Your task to perform on an android device: Empty the shopping cart on newegg.com. Add dell xps to the cart on newegg.com Image 0: 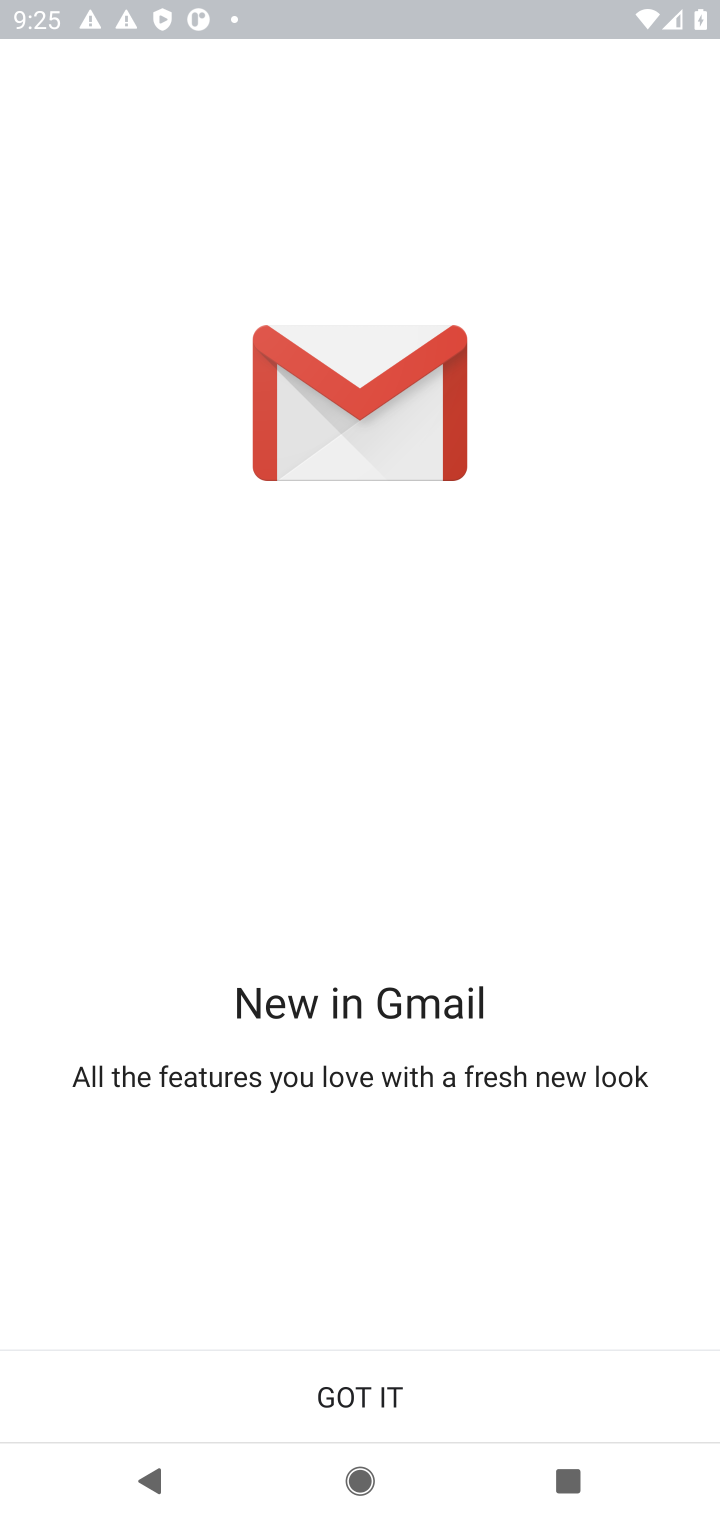
Step 0: press home button
Your task to perform on an android device: Empty the shopping cart on newegg.com. Add dell xps to the cart on newegg.com Image 1: 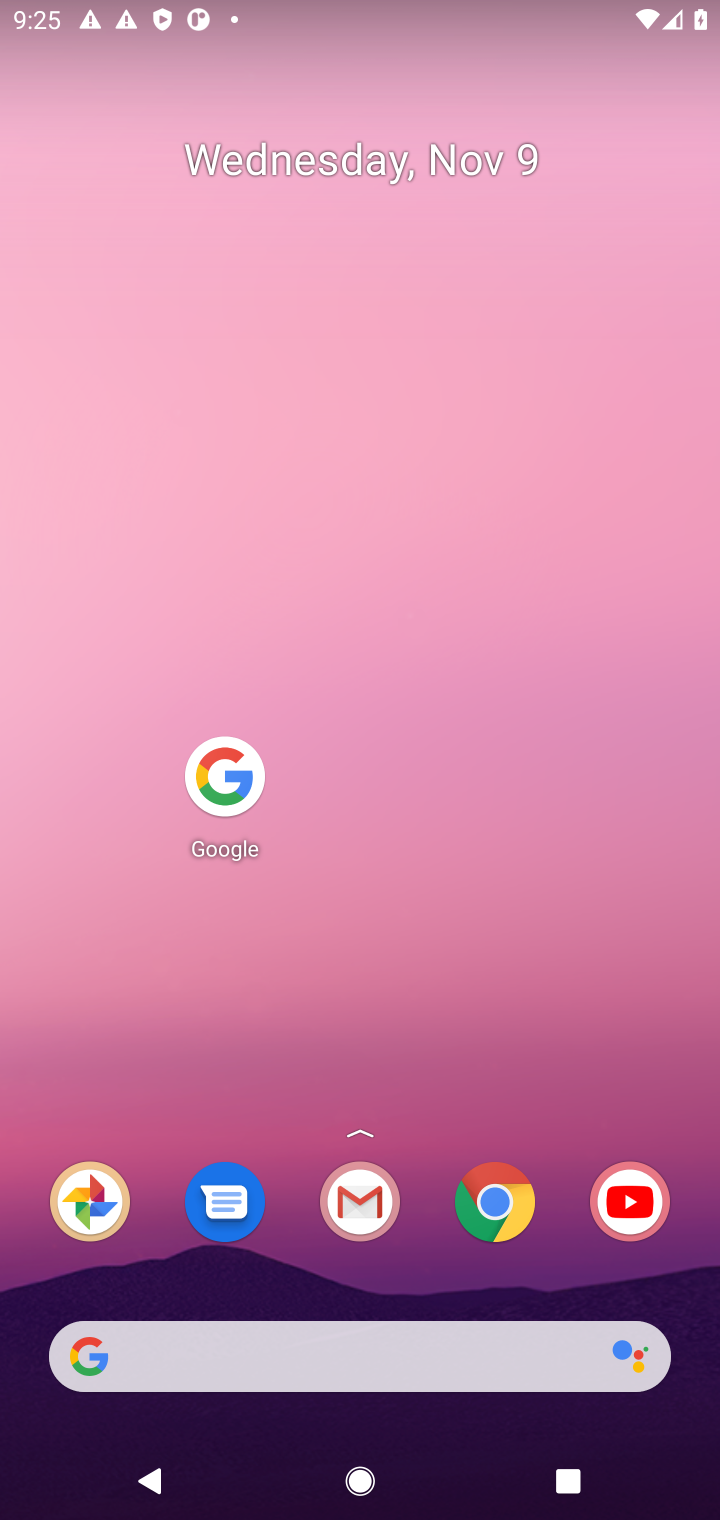
Step 1: click (229, 776)
Your task to perform on an android device: Empty the shopping cart on newegg.com. Add dell xps to the cart on newegg.com Image 2: 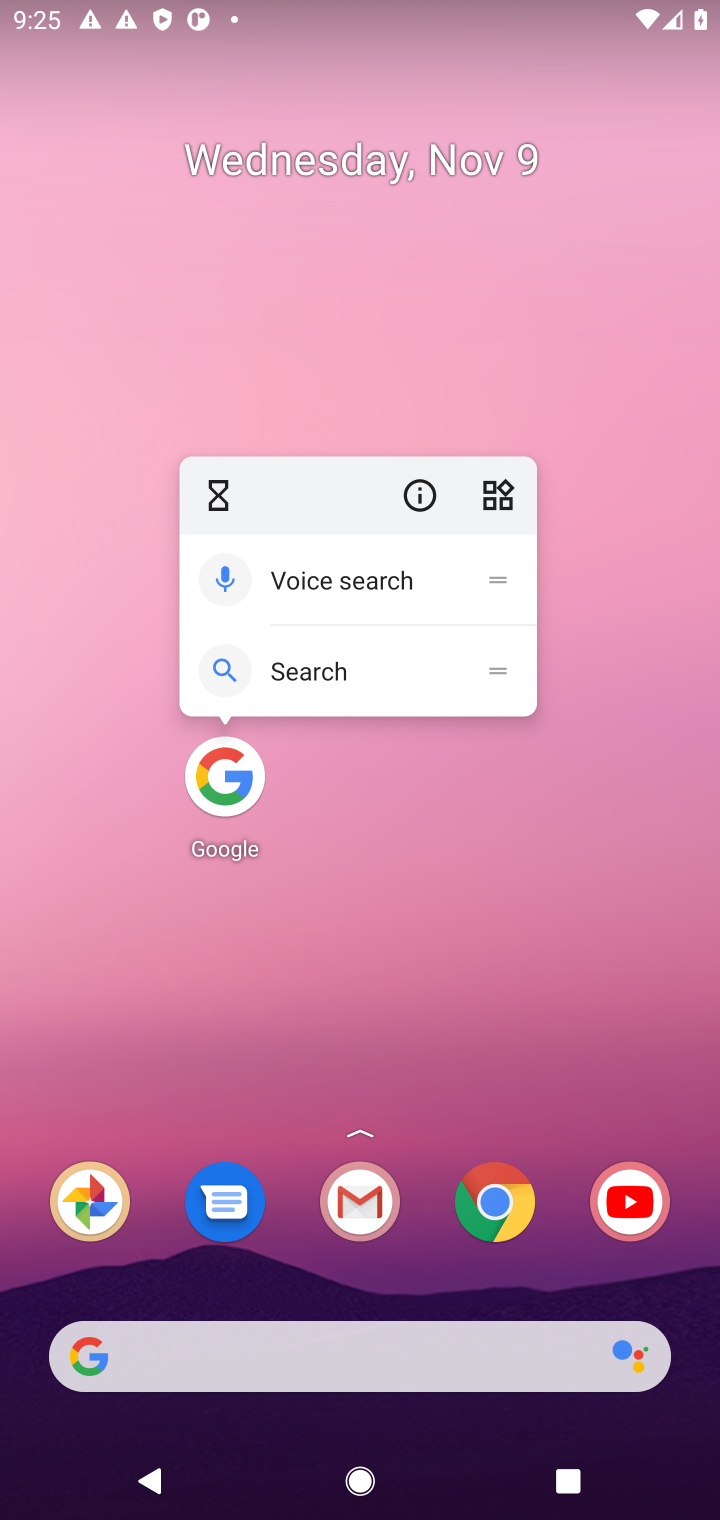
Step 2: click (229, 778)
Your task to perform on an android device: Empty the shopping cart on newegg.com. Add dell xps to the cart on newegg.com Image 3: 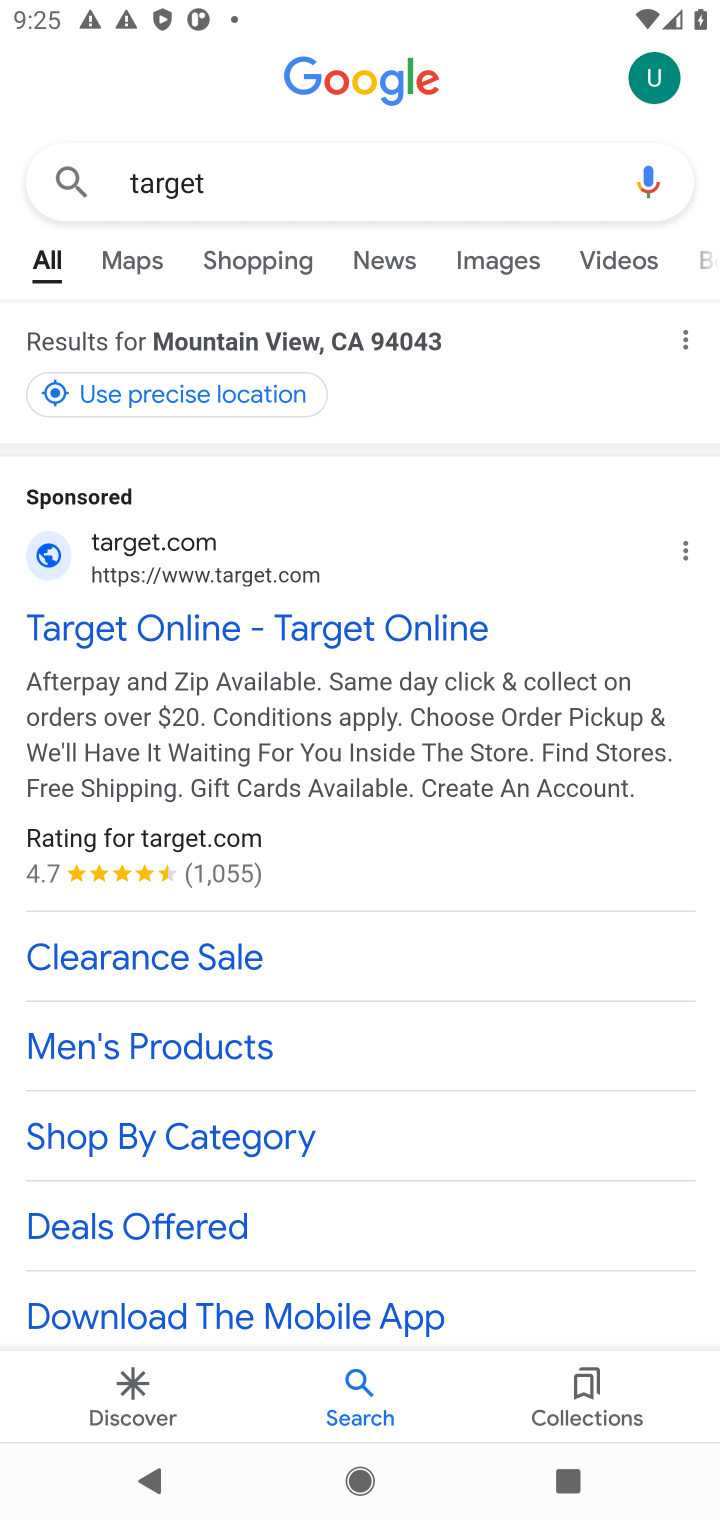
Step 3: click (267, 171)
Your task to perform on an android device: Empty the shopping cart on newegg.com. Add dell xps to the cart on newegg.com Image 4: 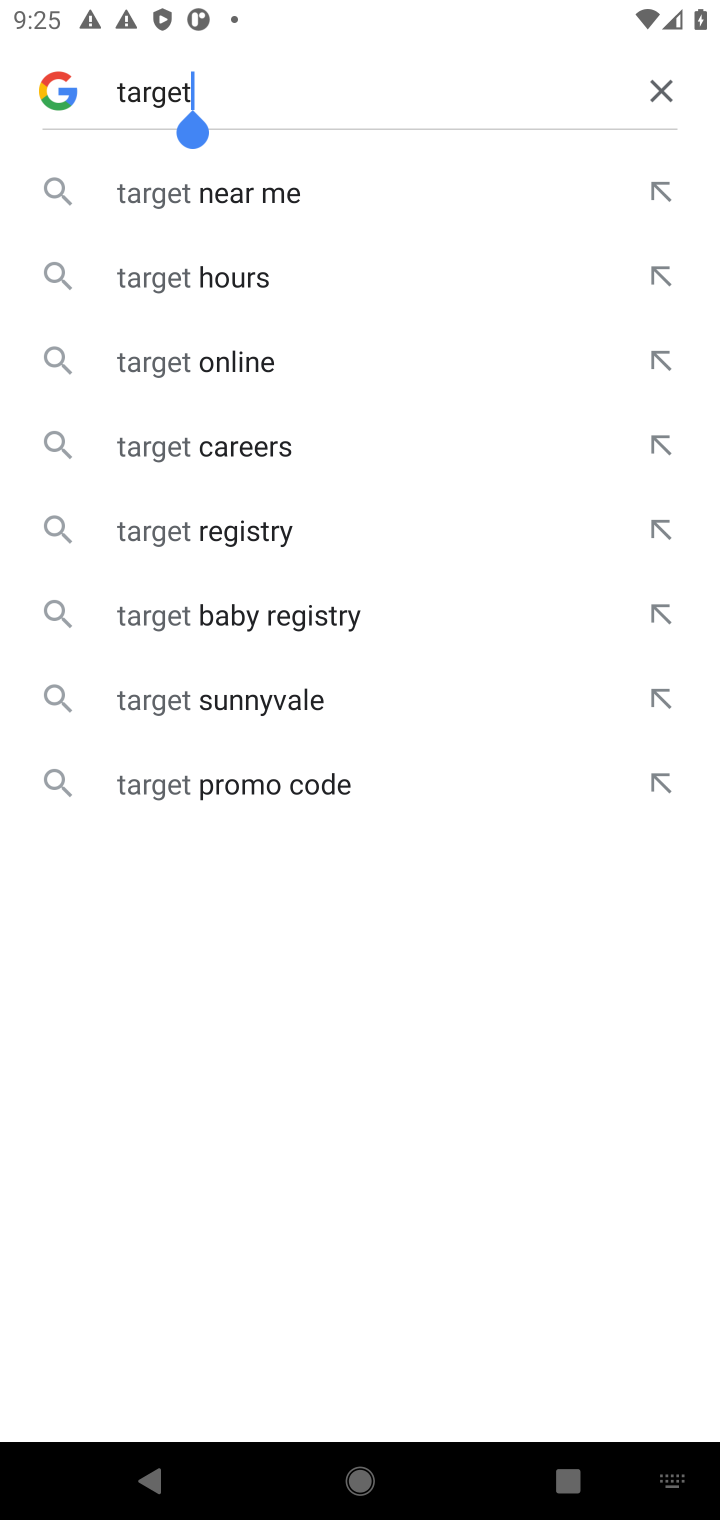
Step 4: click (660, 92)
Your task to perform on an android device: Empty the shopping cart on newegg.com. Add dell xps to the cart on newegg.com Image 5: 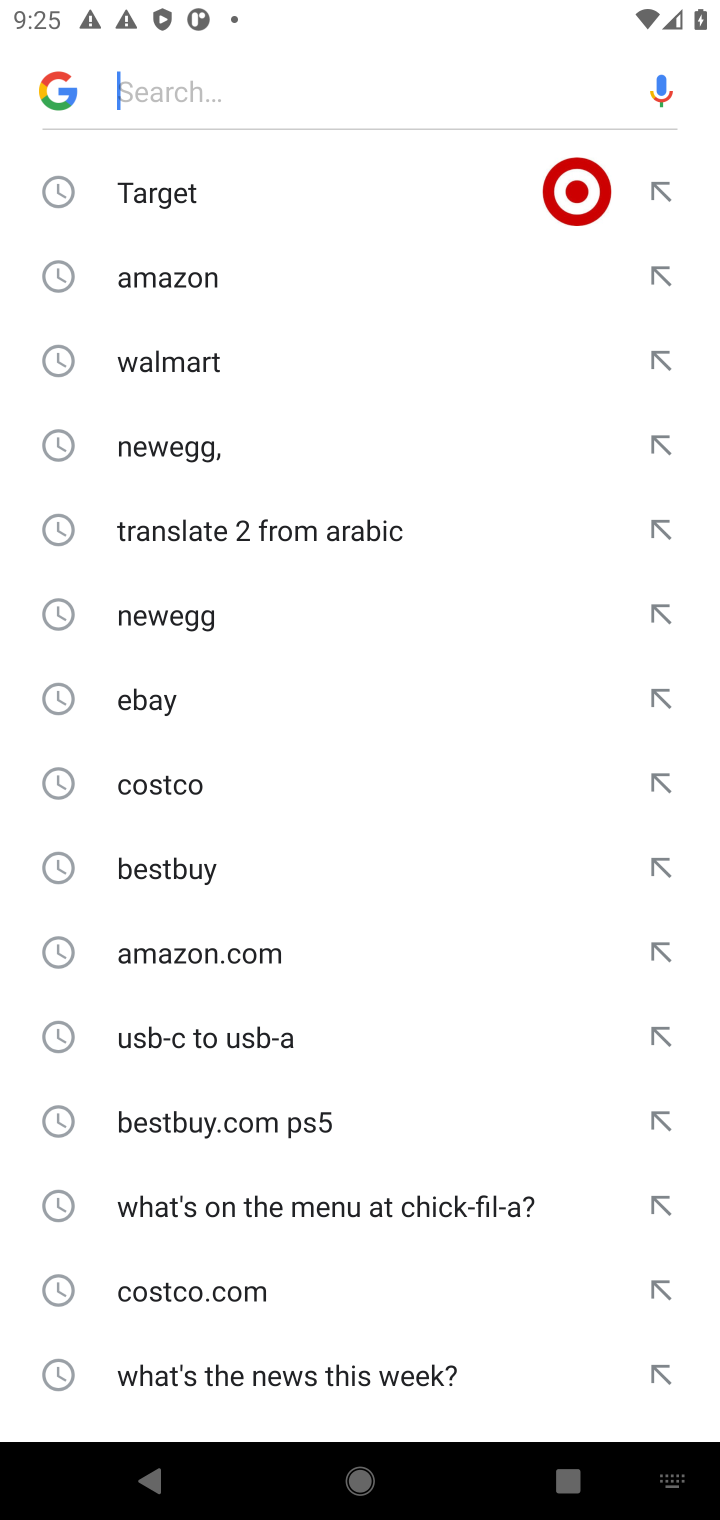
Step 5: click (140, 611)
Your task to perform on an android device: Empty the shopping cart on newegg.com. Add dell xps to the cart on newegg.com Image 6: 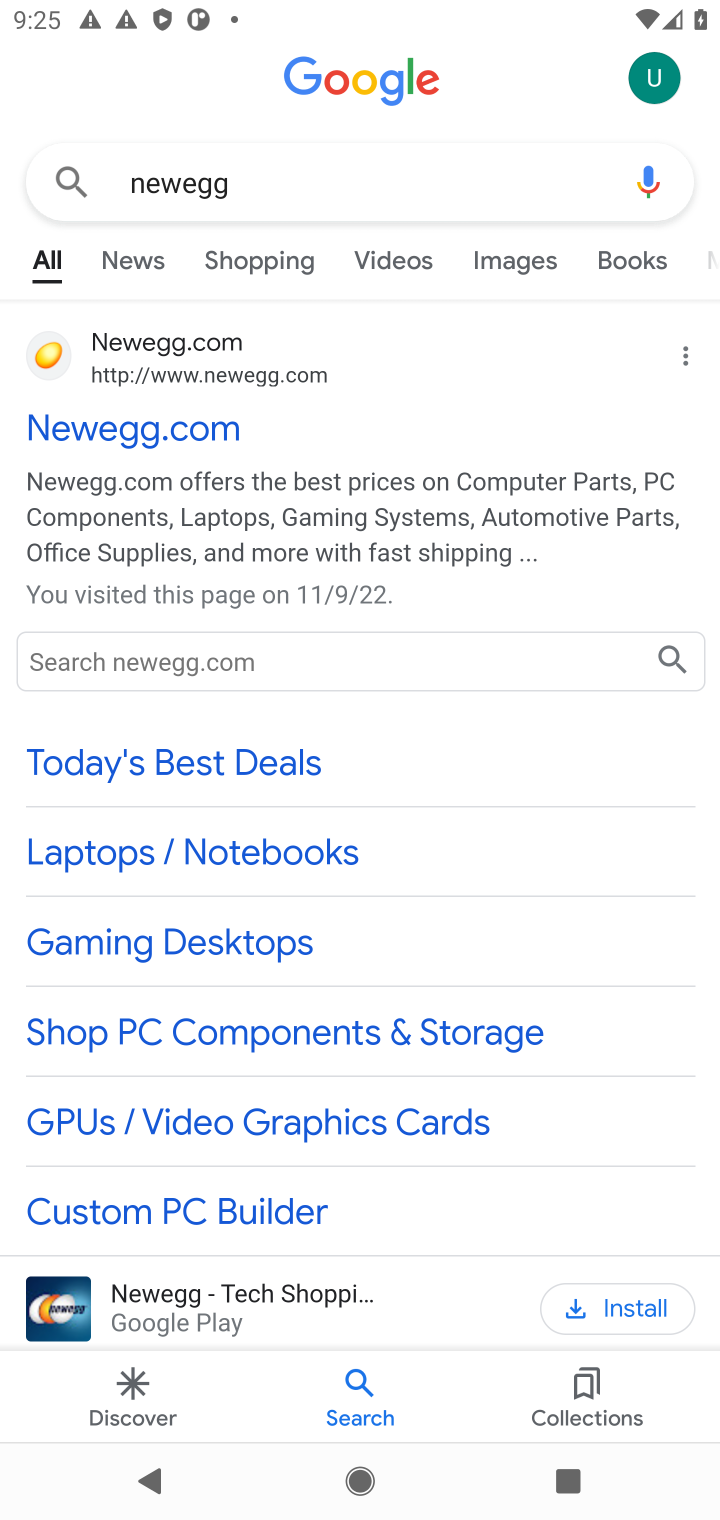
Step 6: click (128, 432)
Your task to perform on an android device: Empty the shopping cart on newegg.com. Add dell xps to the cart on newegg.com Image 7: 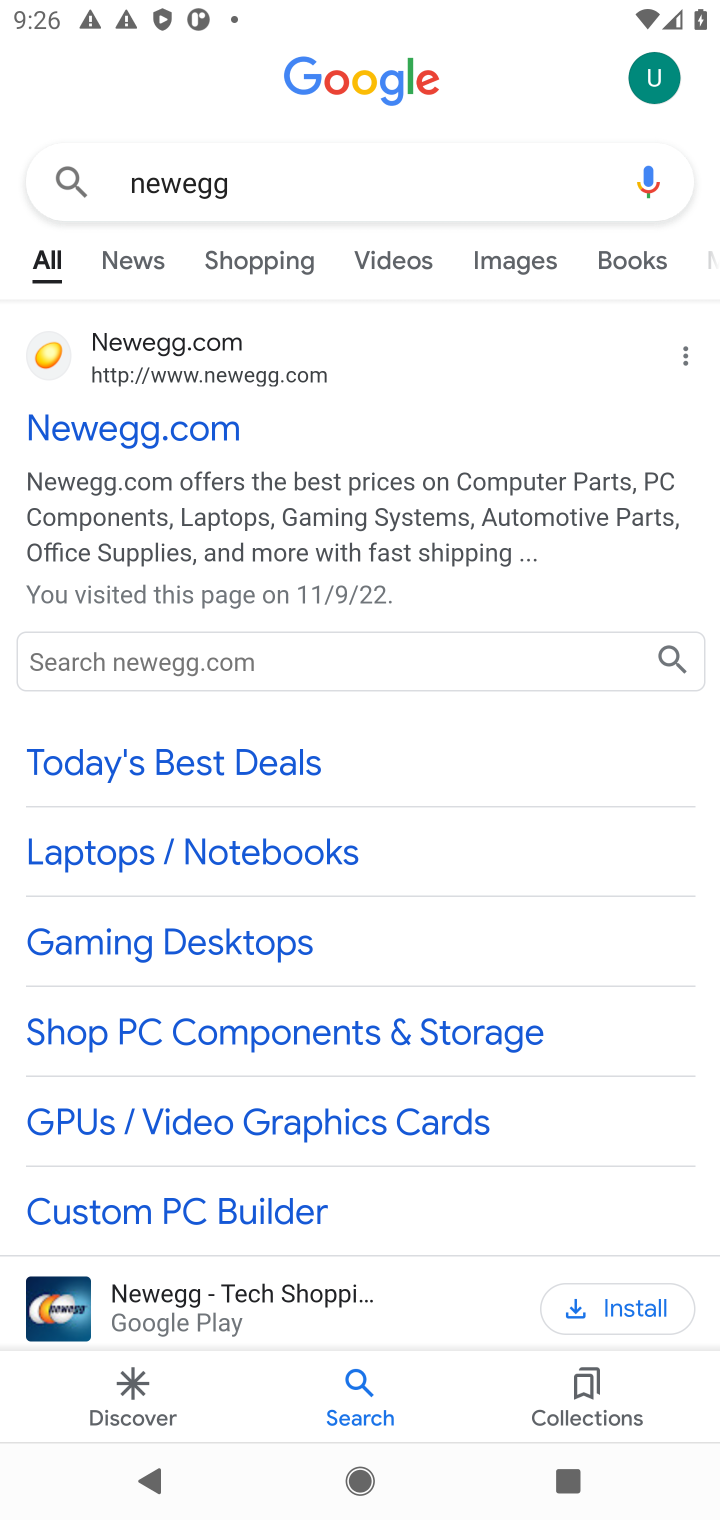
Step 7: click (127, 436)
Your task to perform on an android device: Empty the shopping cart on newegg.com. Add dell xps to the cart on newegg.com Image 8: 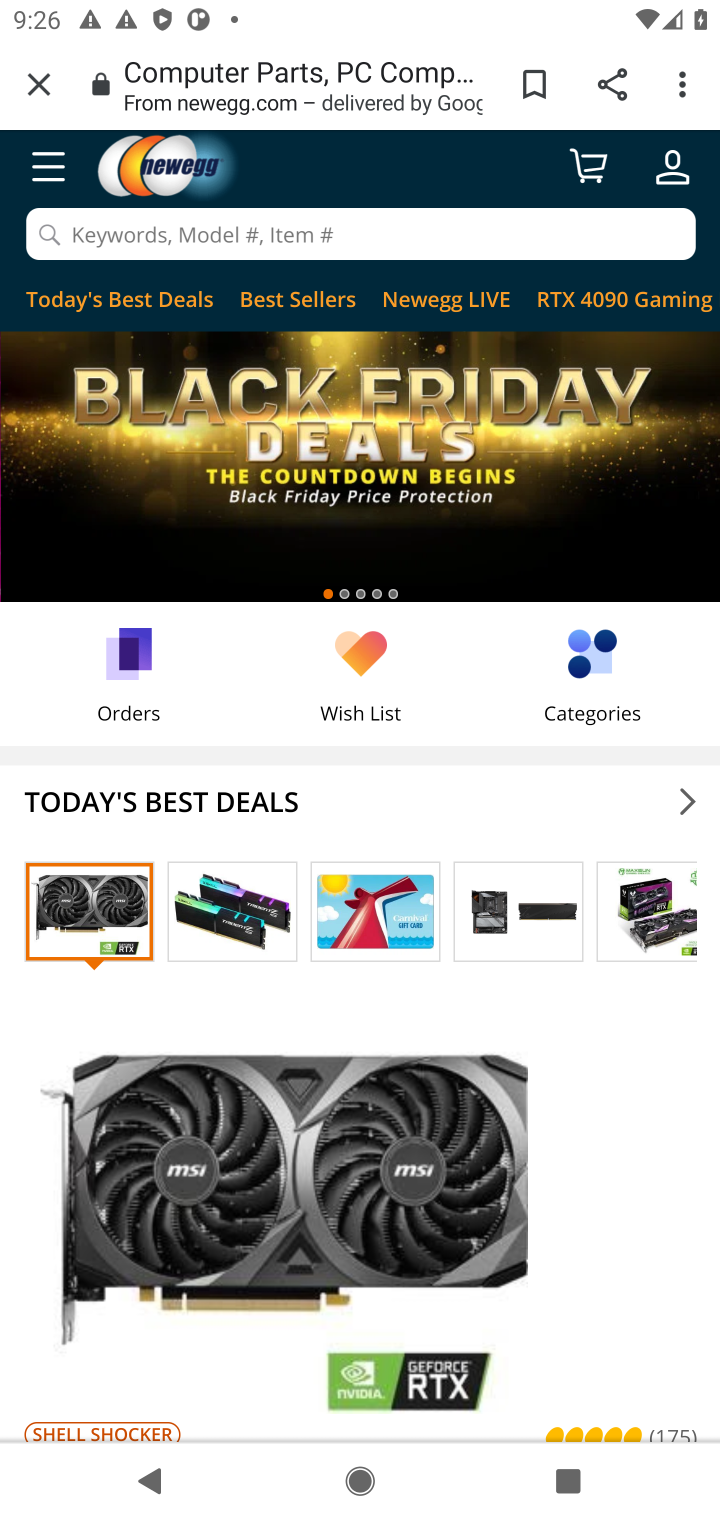
Step 8: click (478, 232)
Your task to perform on an android device: Empty the shopping cart on newegg.com. Add dell xps to the cart on newegg.com Image 9: 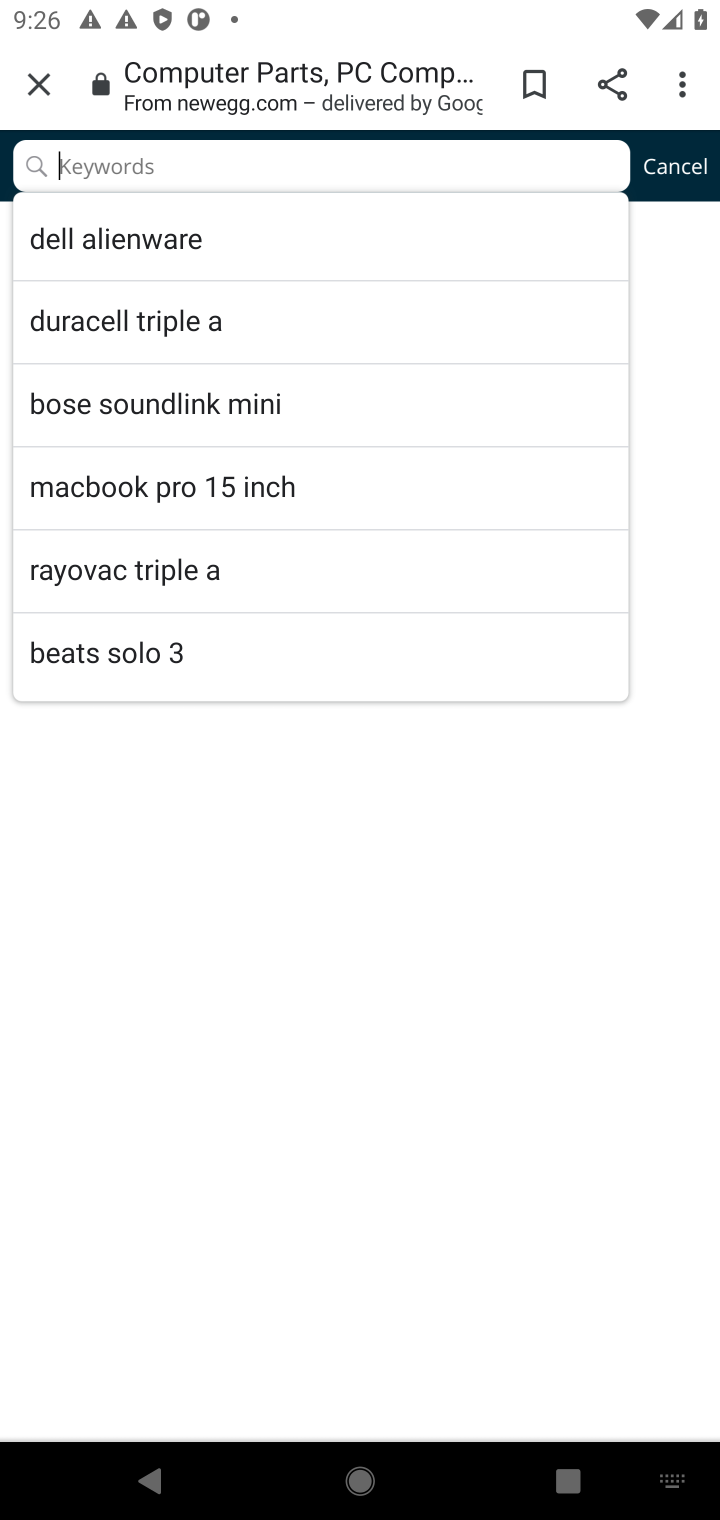
Step 9: click (375, 222)
Your task to perform on an android device: Empty the shopping cart on newegg.com. Add dell xps to the cart on newegg.com Image 10: 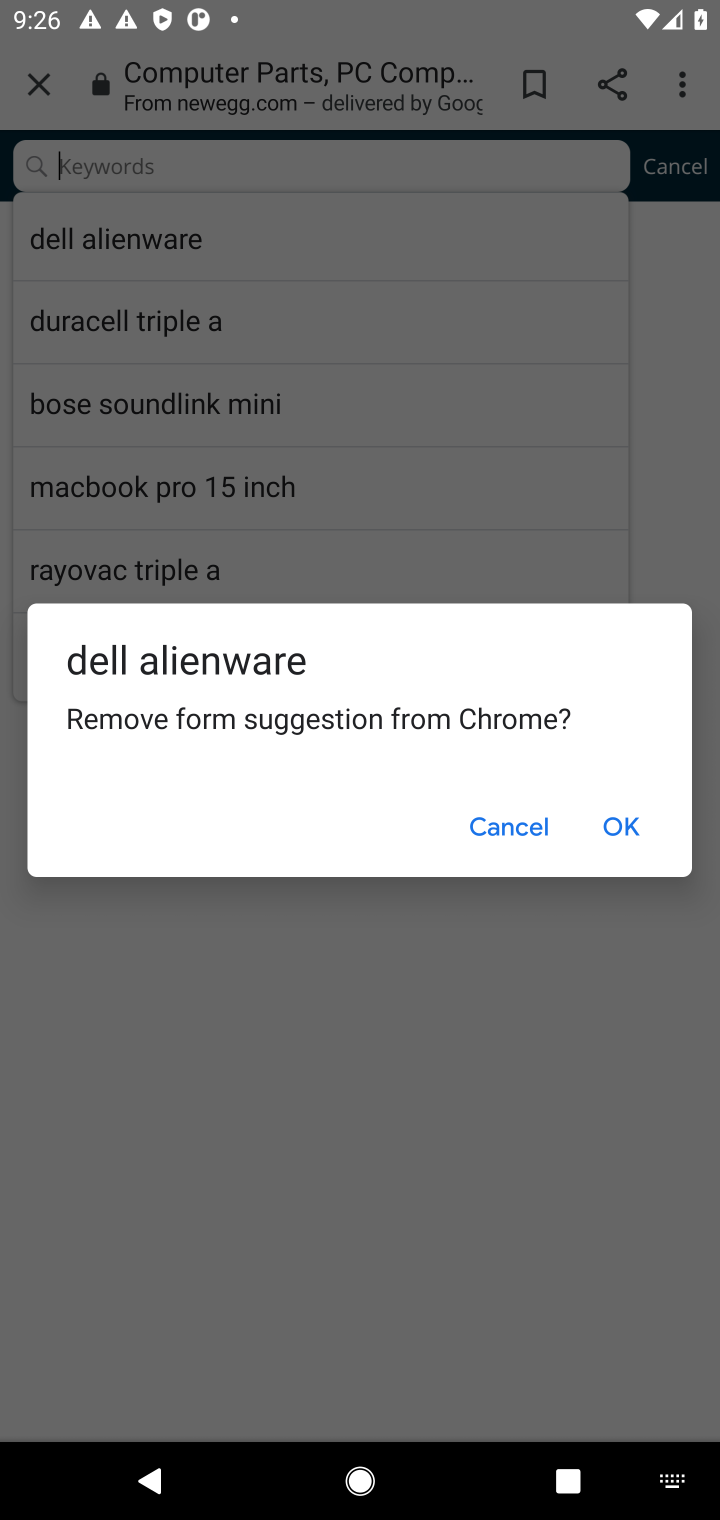
Step 10: click (492, 826)
Your task to perform on an android device: Empty the shopping cart on newegg.com. Add dell xps to the cart on newegg.com Image 11: 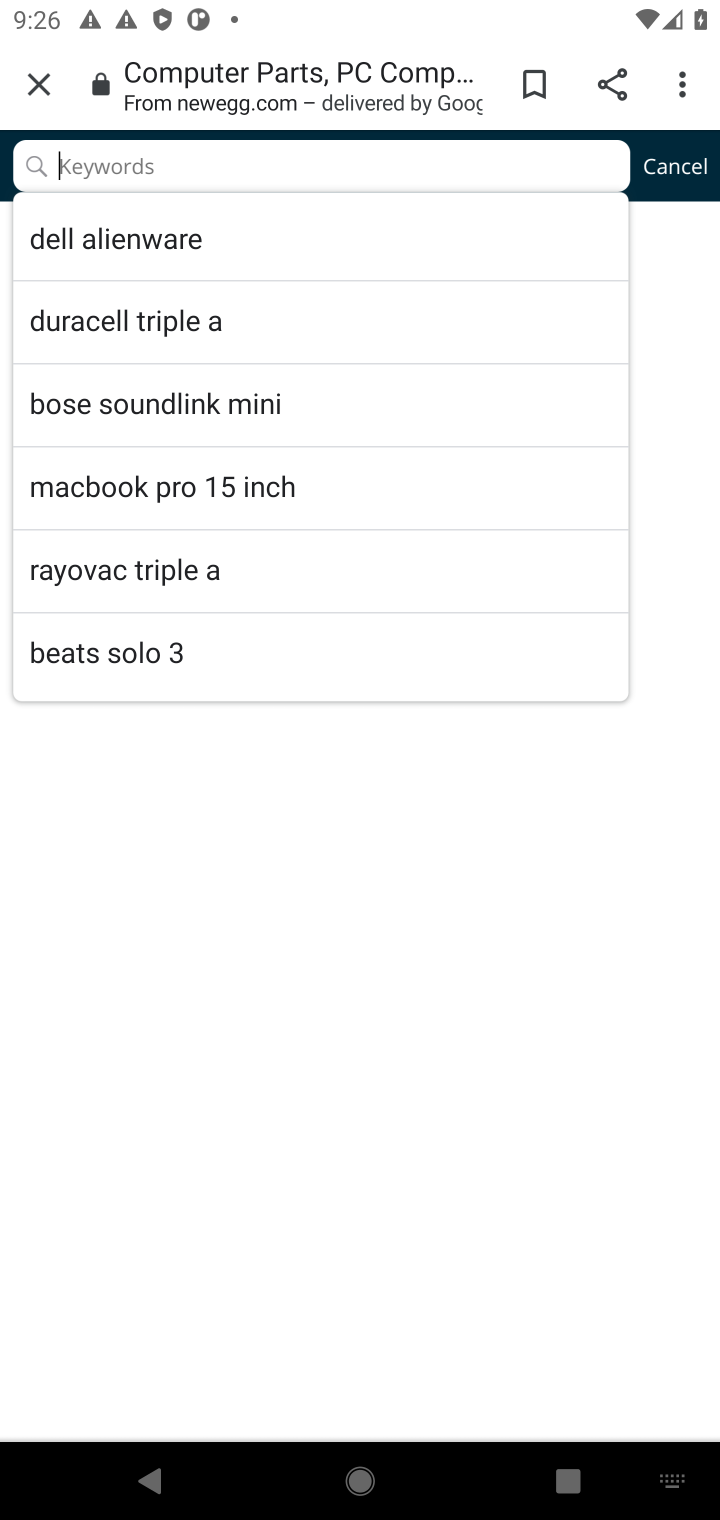
Step 11: click (260, 164)
Your task to perform on an android device: Empty the shopping cart on newegg.com. Add dell xps to the cart on newegg.com Image 12: 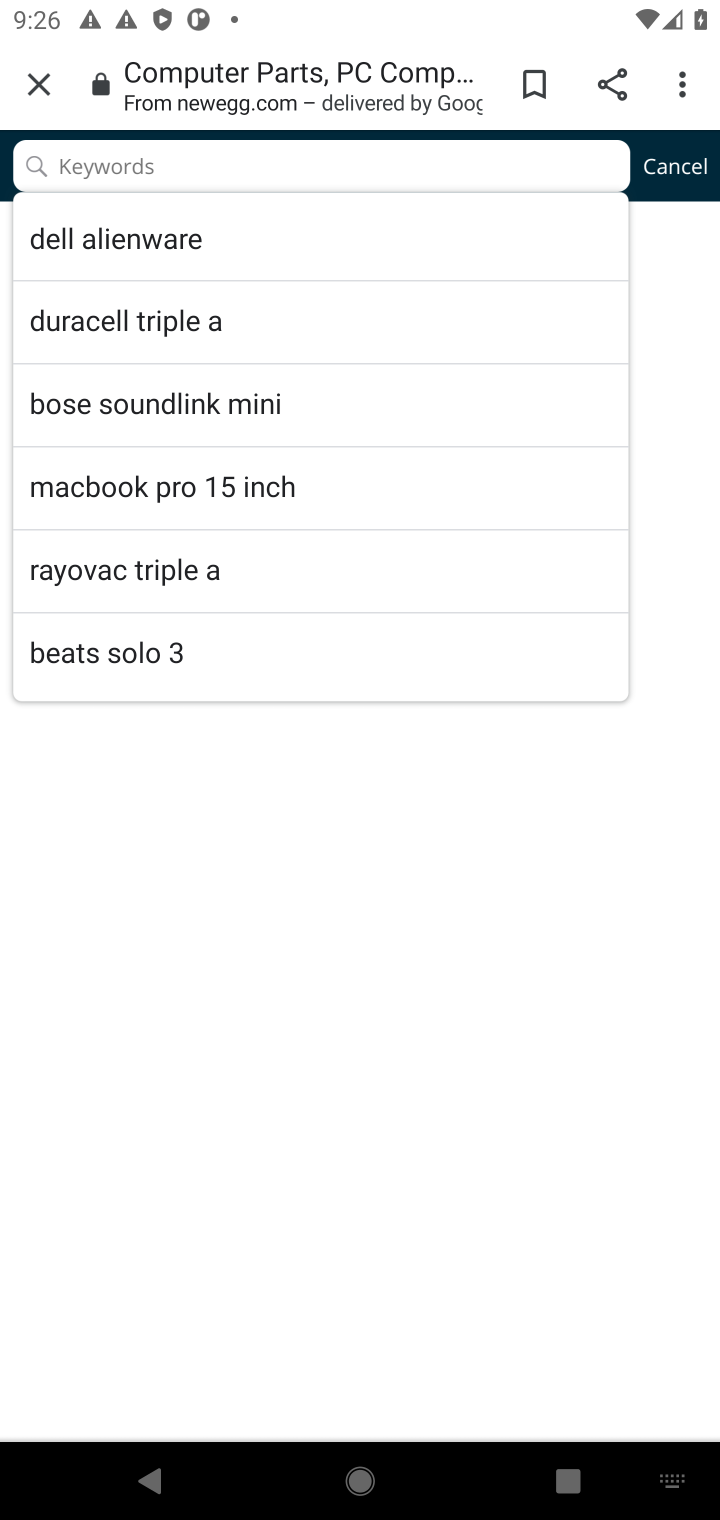
Step 12: type "dell xps"
Your task to perform on an android device: Empty the shopping cart on newegg.com. Add dell xps to the cart on newegg.com Image 13: 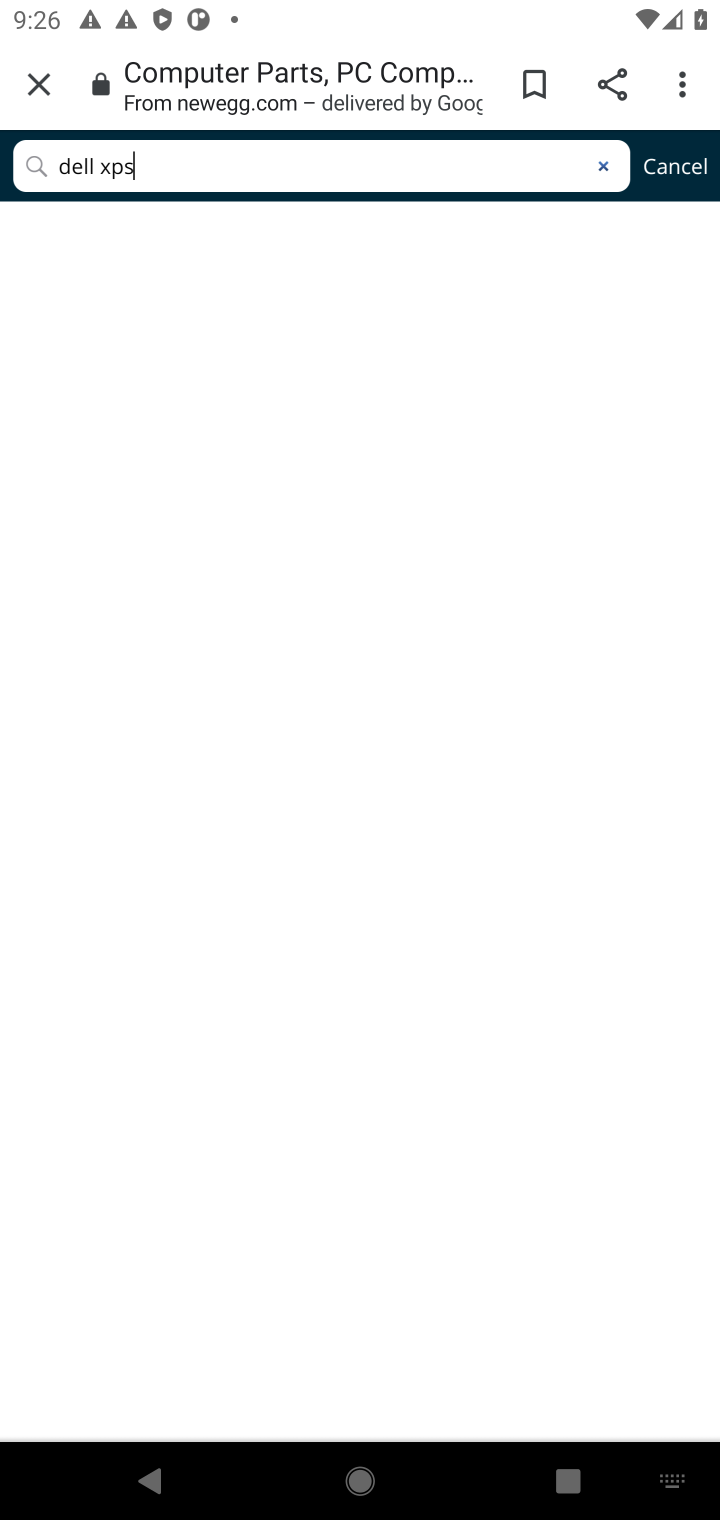
Step 13: press enter
Your task to perform on an android device: Empty the shopping cart on newegg.com. Add dell xps to the cart on newegg.com Image 14: 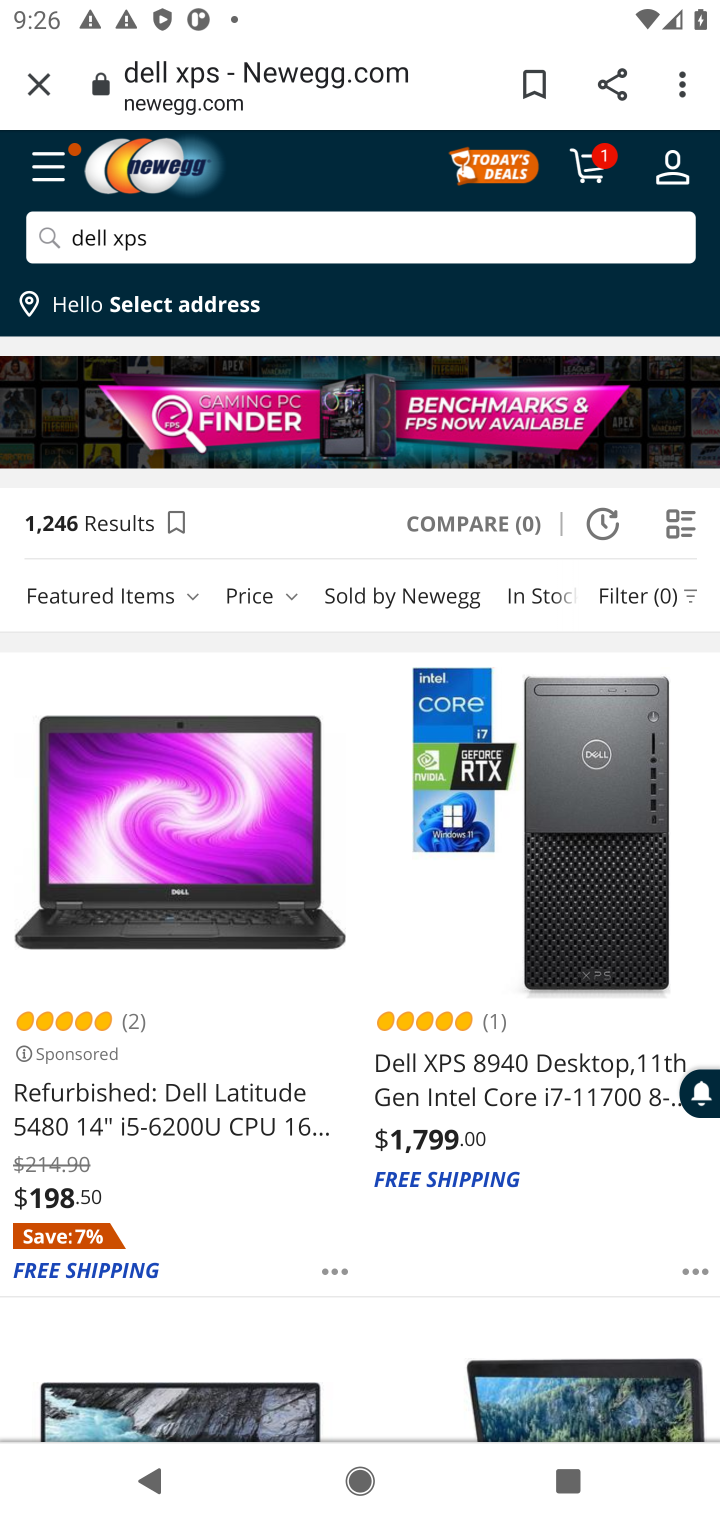
Step 14: click (551, 1025)
Your task to perform on an android device: Empty the shopping cart on newegg.com. Add dell xps to the cart on newegg.com Image 15: 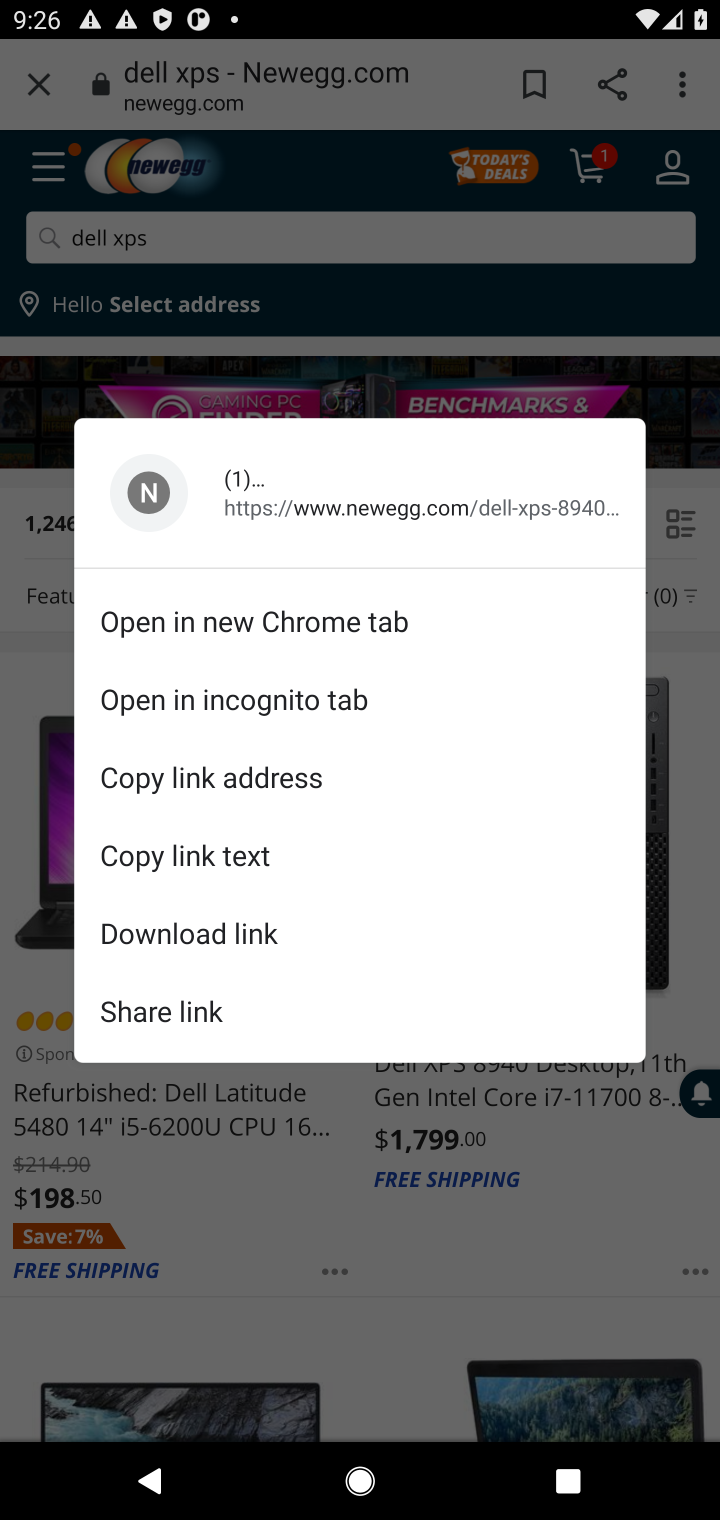
Step 15: click (580, 1093)
Your task to perform on an android device: Empty the shopping cart on newegg.com. Add dell xps to the cart on newegg.com Image 16: 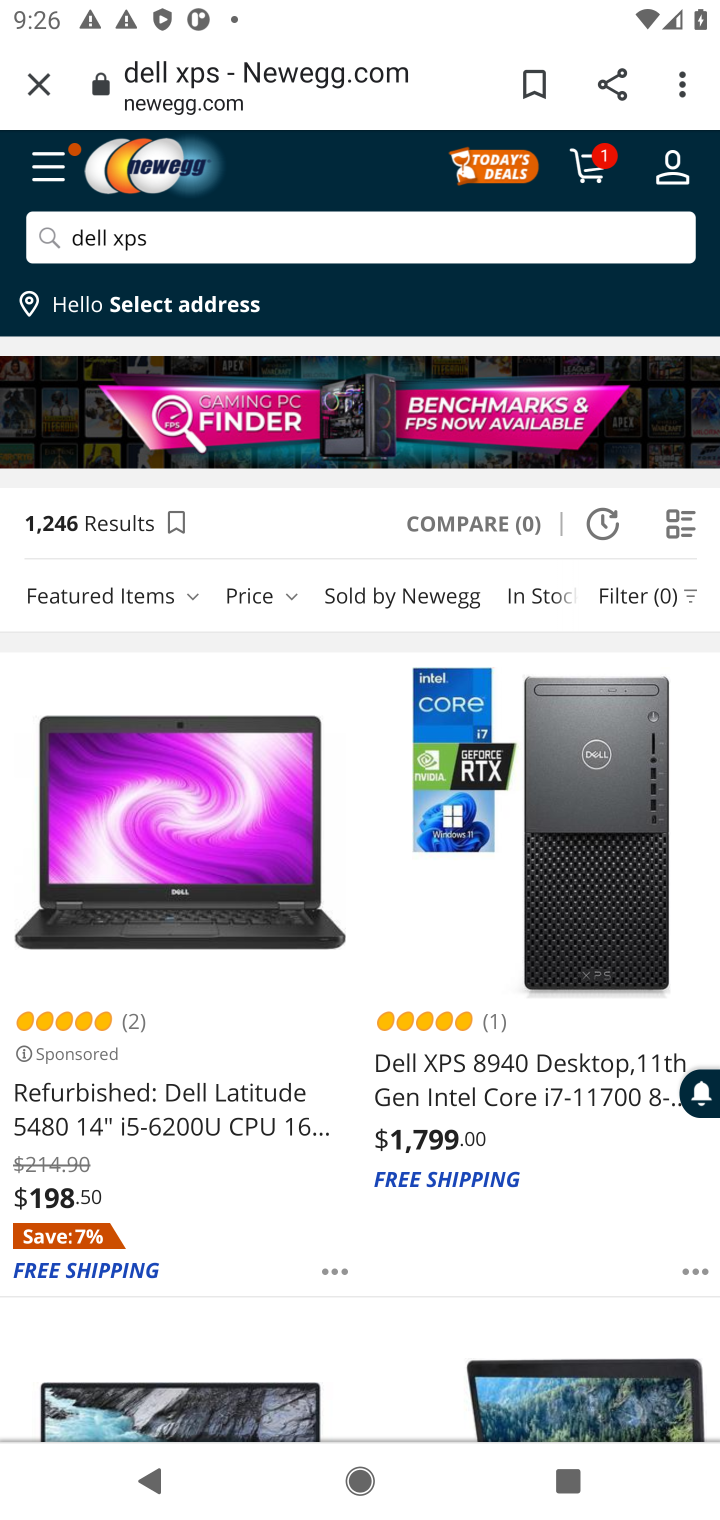
Step 16: click (557, 1071)
Your task to perform on an android device: Empty the shopping cart on newegg.com. Add dell xps to the cart on newegg.com Image 17: 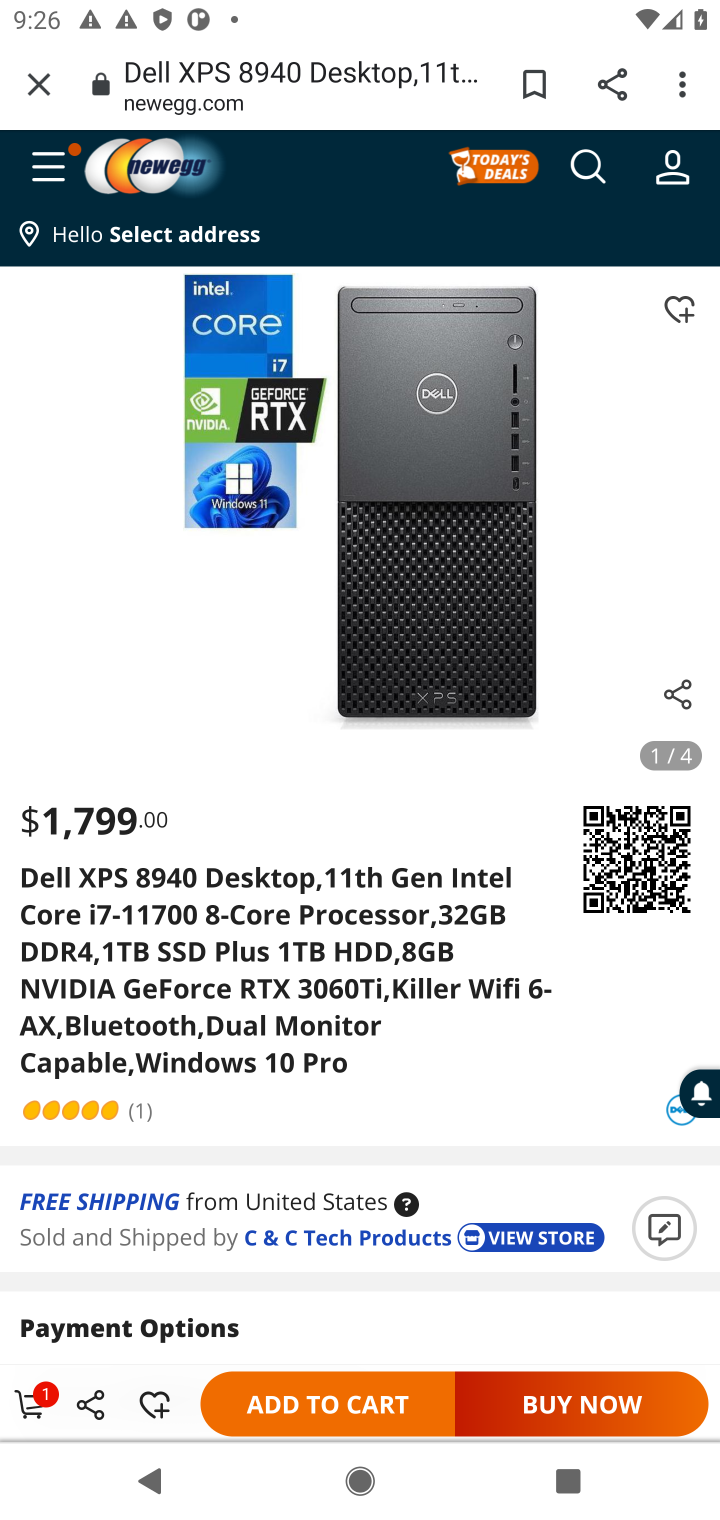
Step 17: click (332, 1387)
Your task to perform on an android device: Empty the shopping cart on newegg.com. Add dell xps to the cart on newegg.com Image 18: 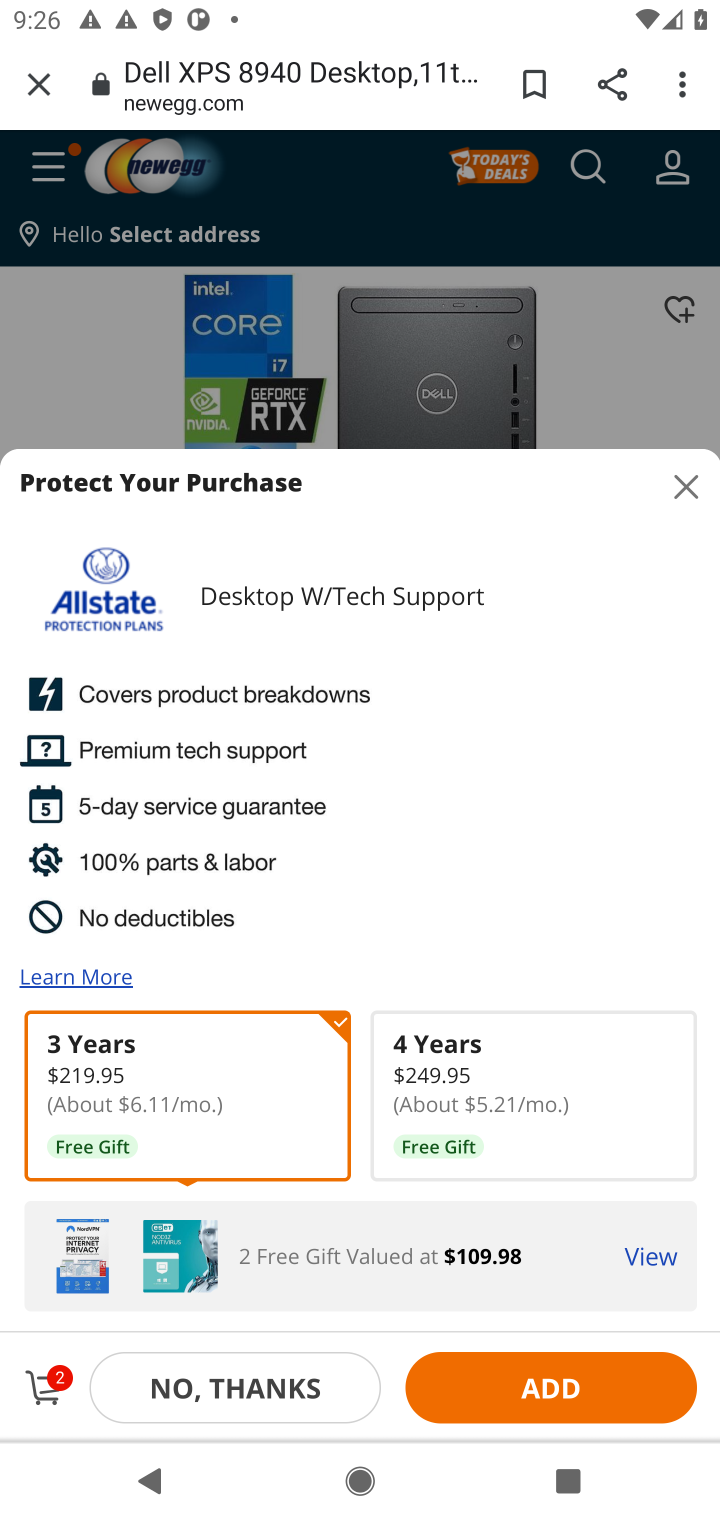
Step 18: click (55, 1379)
Your task to perform on an android device: Empty the shopping cart on newegg.com. Add dell xps to the cart on newegg.com Image 19: 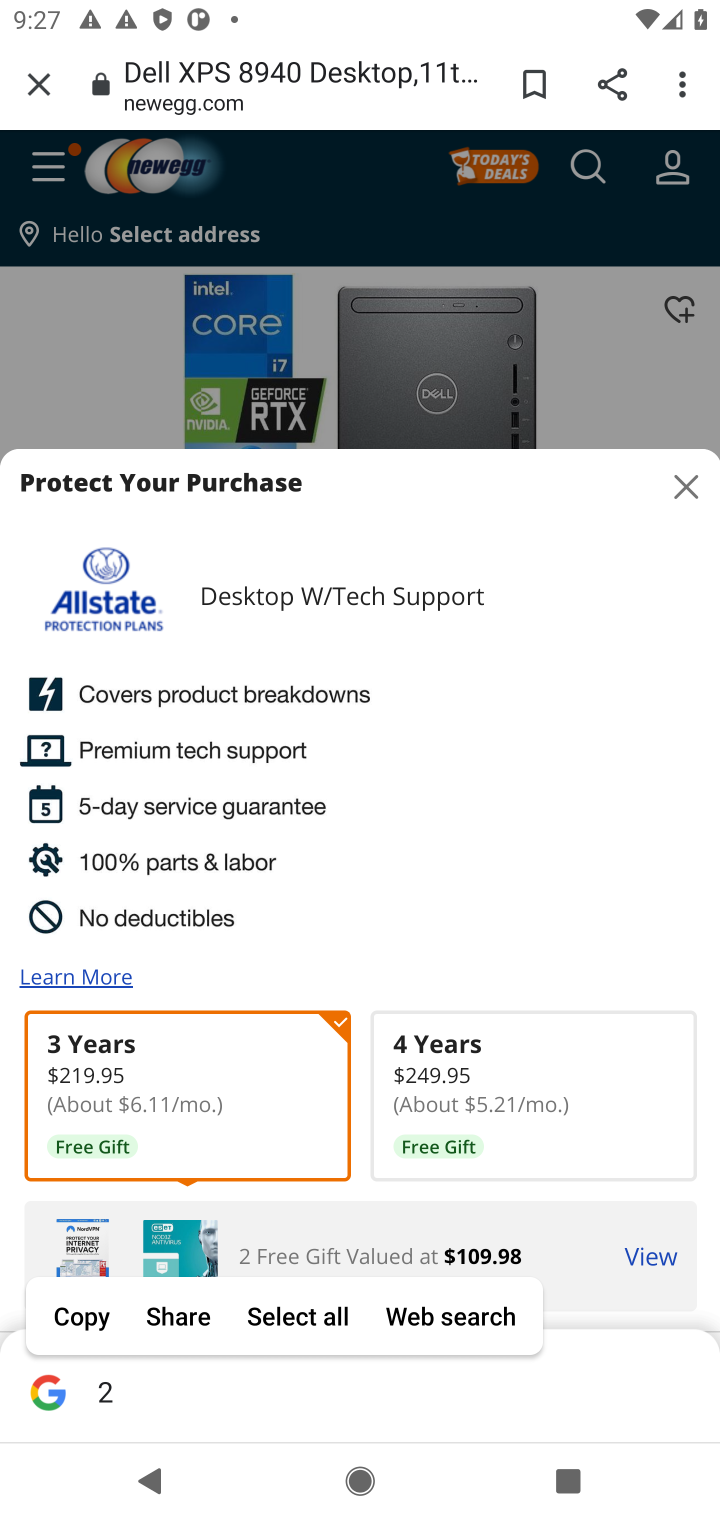
Step 19: drag from (560, 908) to (657, 625)
Your task to perform on an android device: Empty the shopping cart on newegg.com. Add dell xps to the cart on newegg.com Image 20: 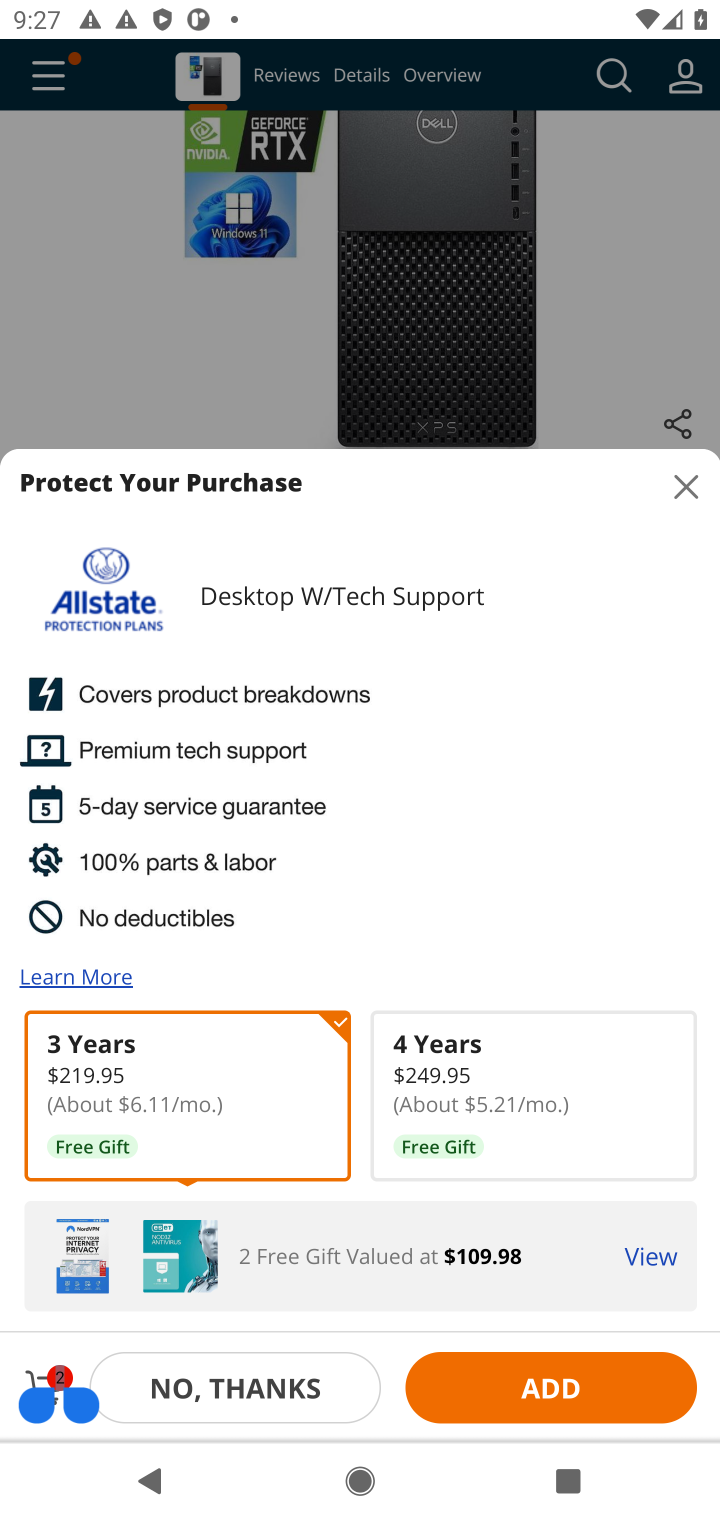
Step 20: click (46, 1379)
Your task to perform on an android device: Empty the shopping cart on newegg.com. Add dell xps to the cart on newegg.com Image 21: 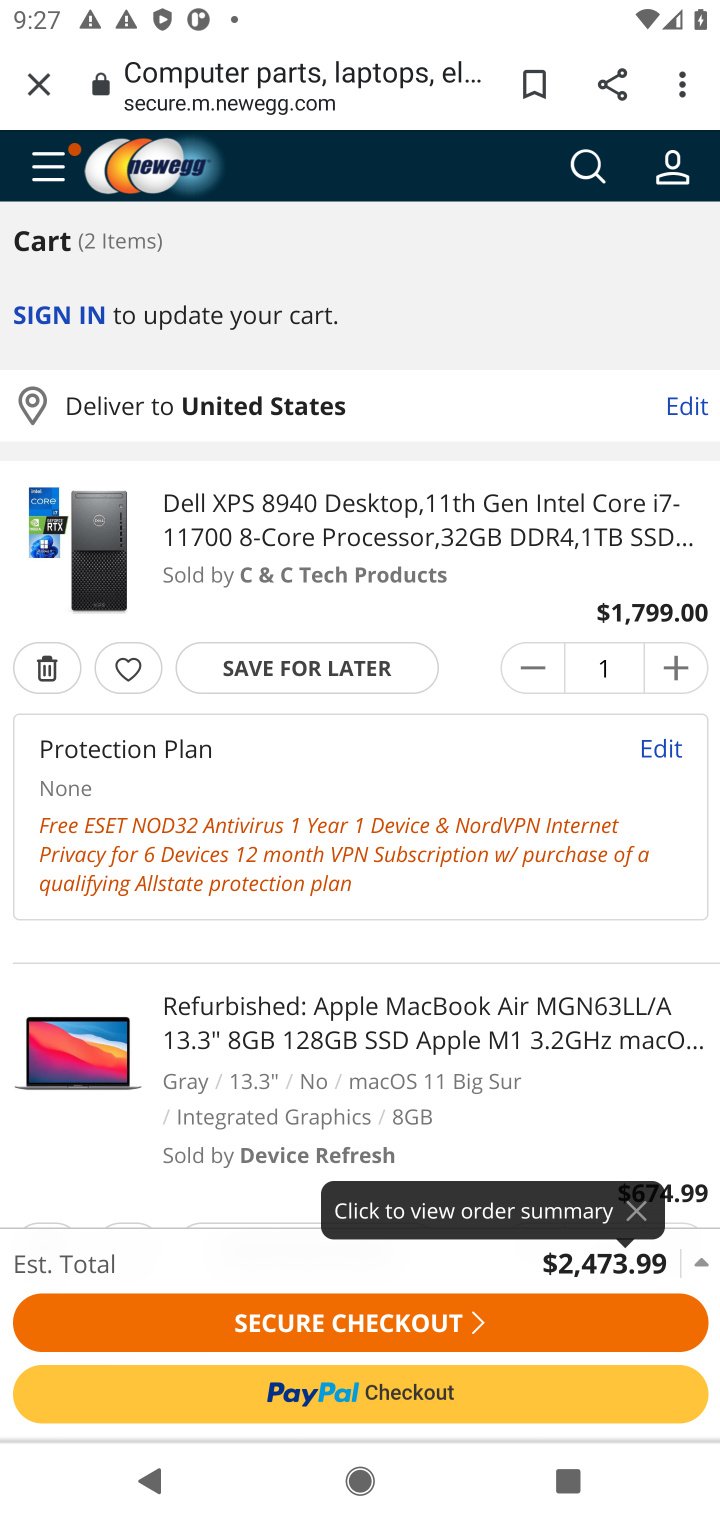
Step 21: drag from (271, 1089) to (498, 482)
Your task to perform on an android device: Empty the shopping cart on newegg.com. Add dell xps to the cart on newegg.com Image 22: 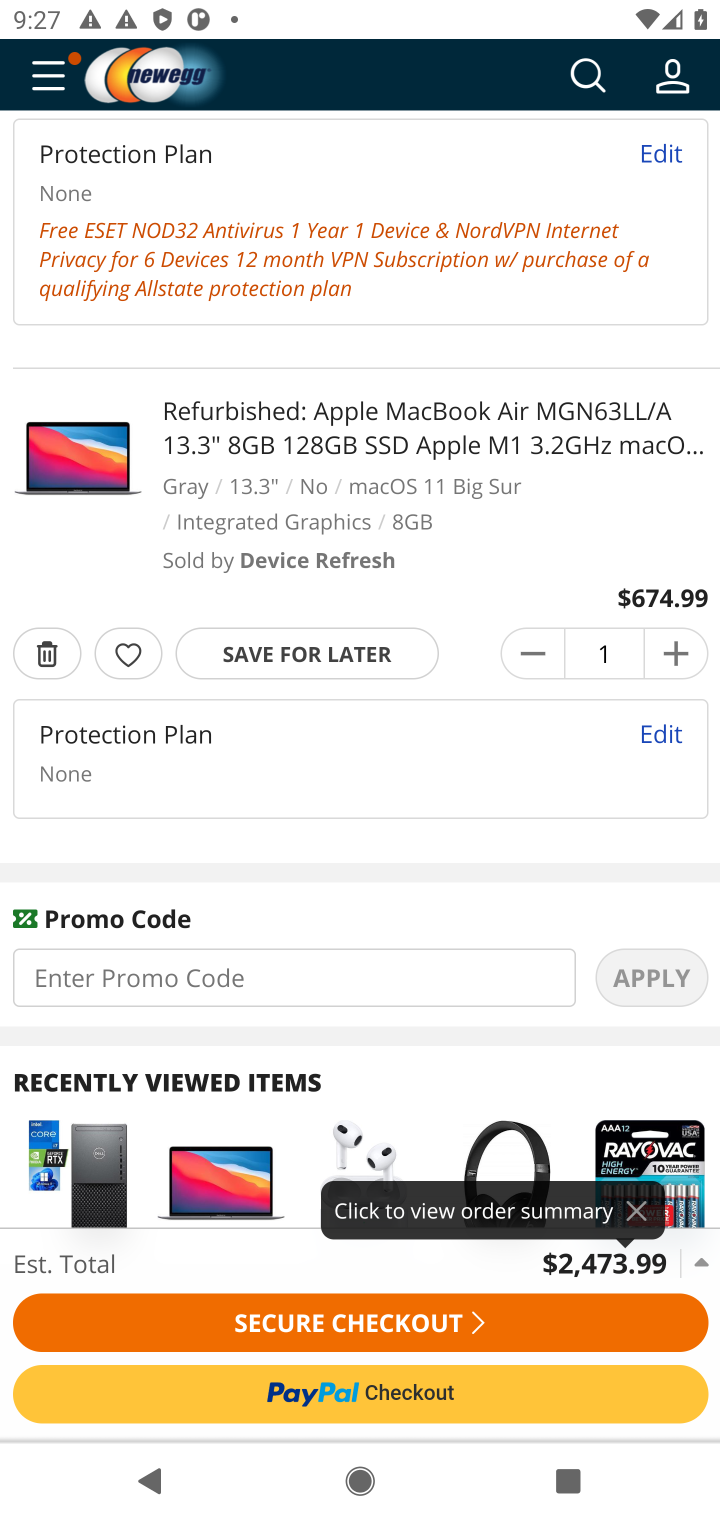
Step 22: click (39, 652)
Your task to perform on an android device: Empty the shopping cart on newegg.com. Add dell xps to the cart on newegg.com Image 23: 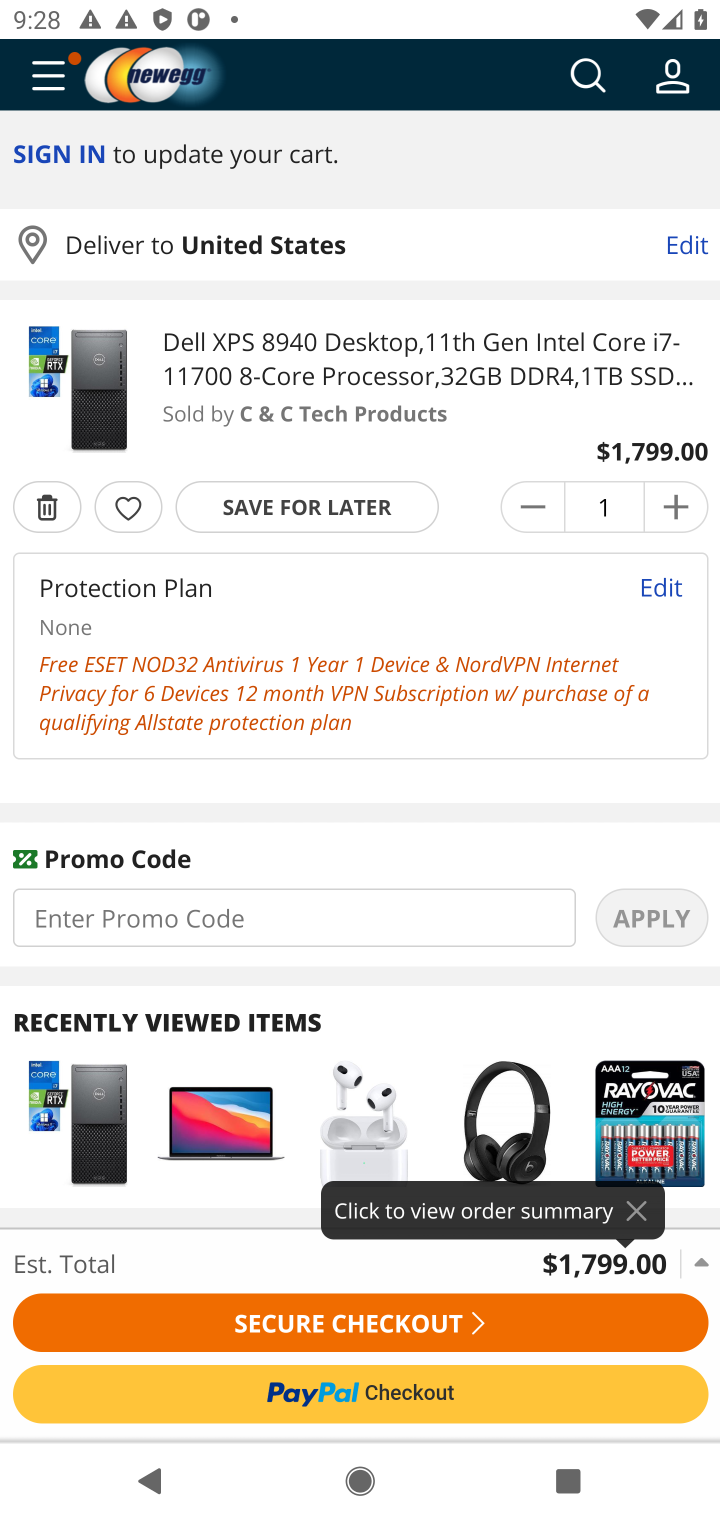
Step 23: task complete